Your task to perform on an android device: What's the weather going to be this weekend? Image 0: 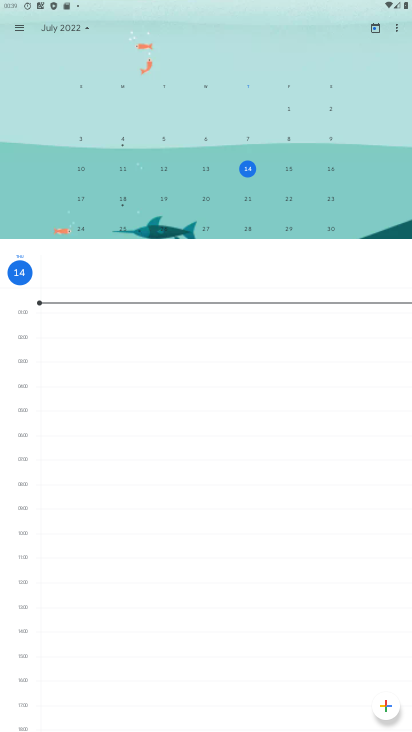
Step 0: press home button
Your task to perform on an android device: What's the weather going to be this weekend? Image 1: 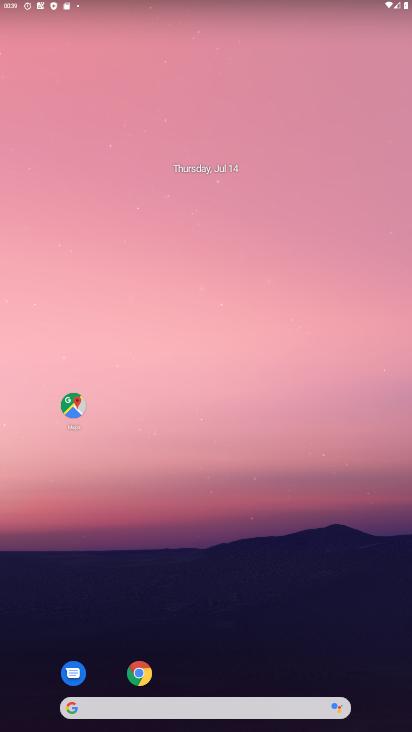
Step 1: drag from (244, 653) to (232, 135)
Your task to perform on an android device: What's the weather going to be this weekend? Image 2: 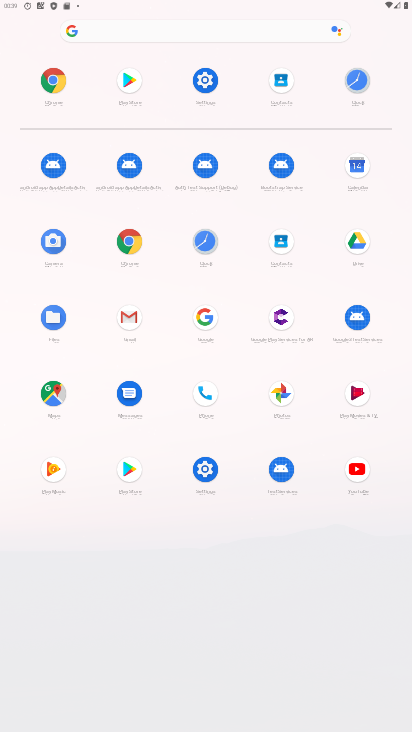
Step 2: click (208, 324)
Your task to perform on an android device: What's the weather going to be this weekend? Image 3: 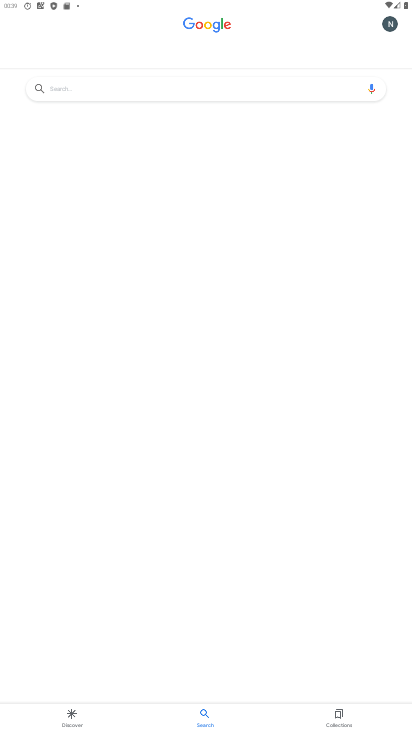
Step 3: click (178, 83)
Your task to perform on an android device: What's the weather going to be this weekend? Image 4: 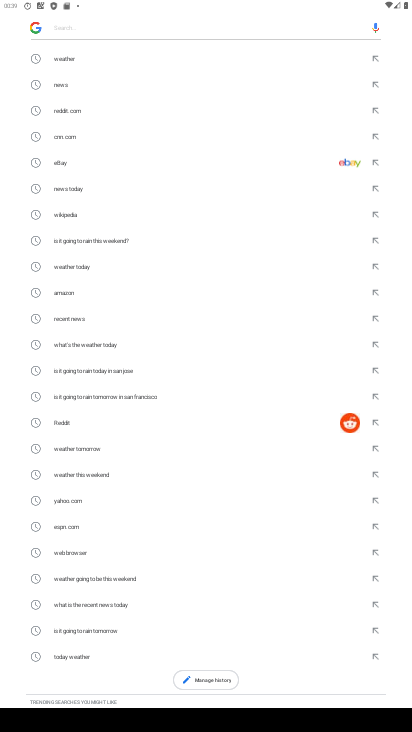
Step 4: click (89, 60)
Your task to perform on an android device: What's the weather going to be this weekend? Image 5: 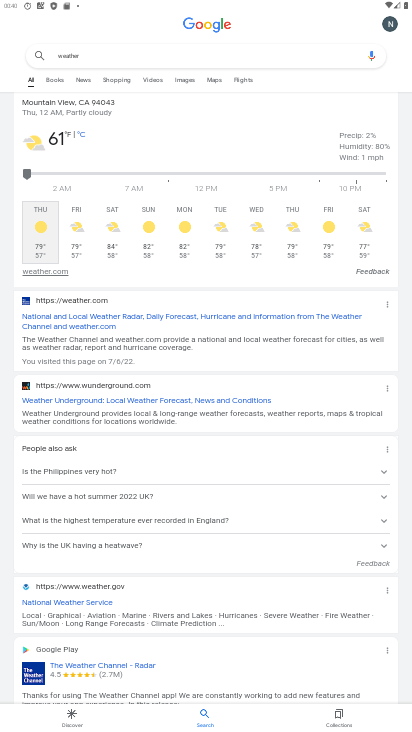
Step 5: task complete